Your task to perform on an android device: change alarm snooze length Image 0: 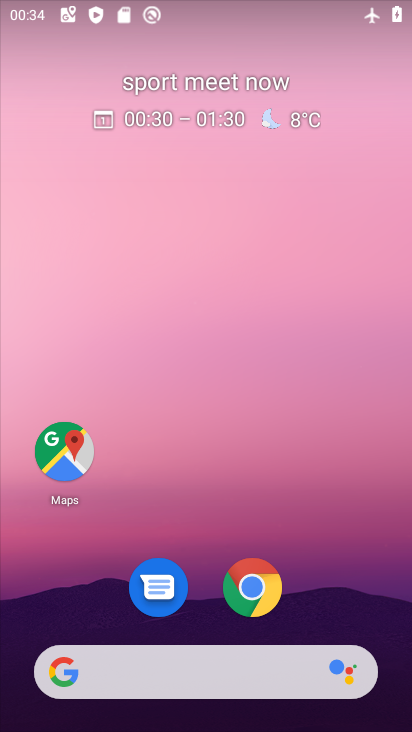
Step 0: drag from (386, 661) to (351, 196)
Your task to perform on an android device: change alarm snooze length Image 1: 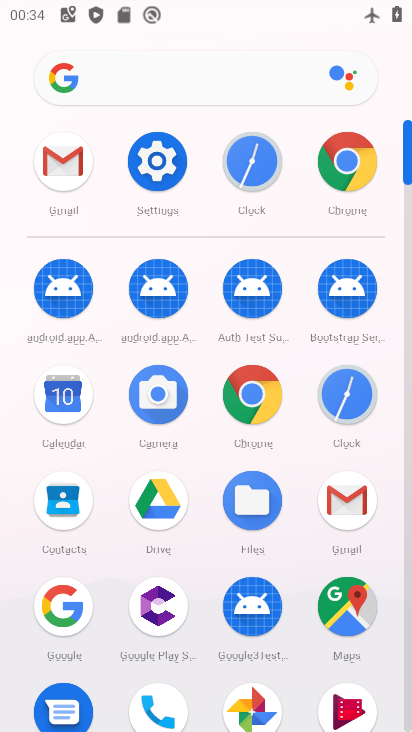
Step 1: click (240, 168)
Your task to perform on an android device: change alarm snooze length Image 2: 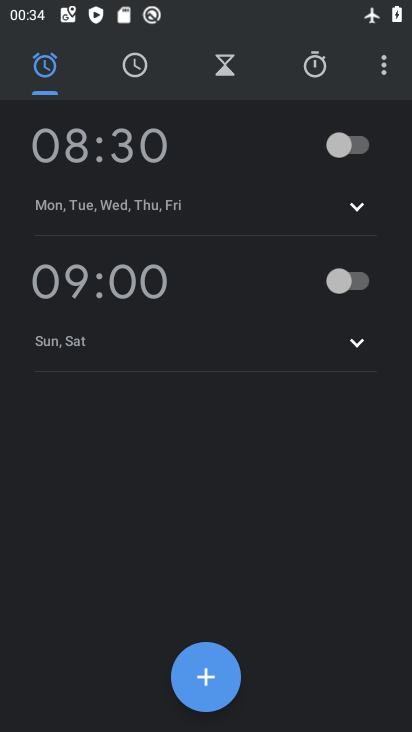
Step 2: click (383, 59)
Your task to perform on an android device: change alarm snooze length Image 3: 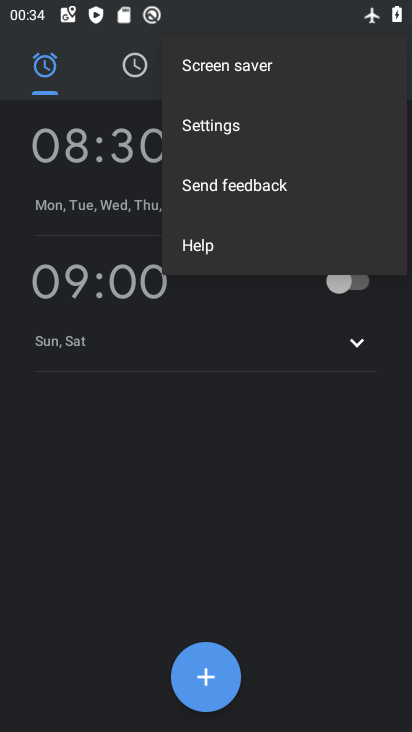
Step 3: click (203, 118)
Your task to perform on an android device: change alarm snooze length Image 4: 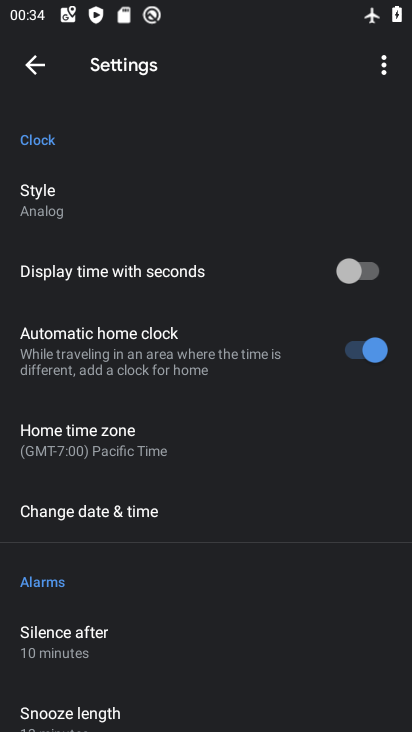
Step 4: click (92, 707)
Your task to perform on an android device: change alarm snooze length Image 5: 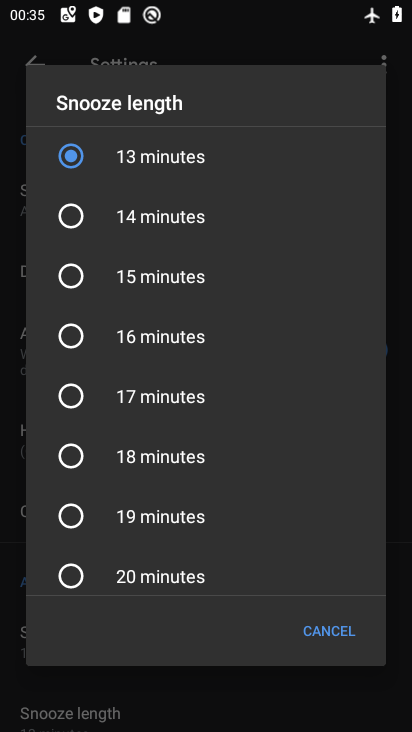
Step 5: click (75, 283)
Your task to perform on an android device: change alarm snooze length Image 6: 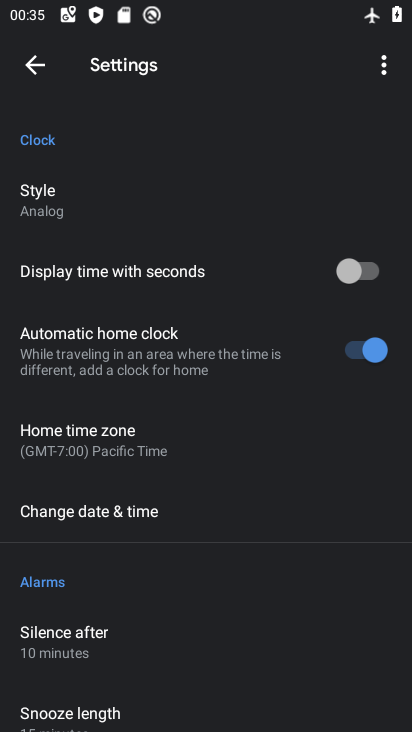
Step 6: task complete